Your task to perform on an android device: read, delete, or share a saved page in the chrome app Image 0: 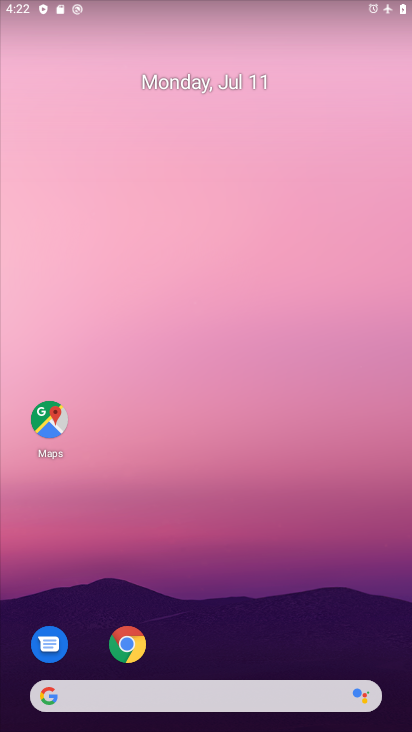
Step 0: drag from (198, 590) to (227, 5)
Your task to perform on an android device: read, delete, or share a saved page in the chrome app Image 1: 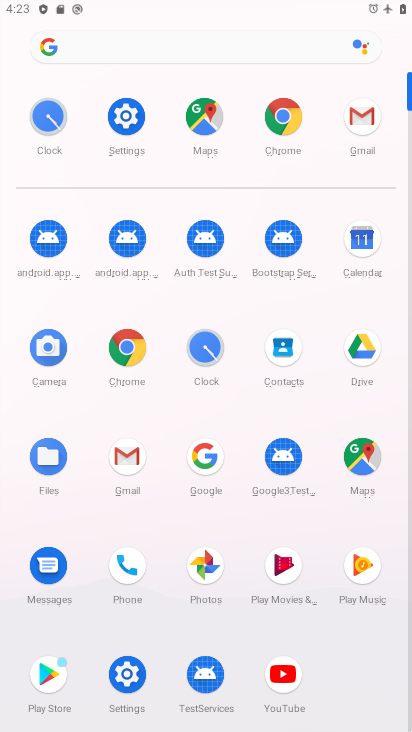
Step 1: click (121, 364)
Your task to perform on an android device: read, delete, or share a saved page in the chrome app Image 2: 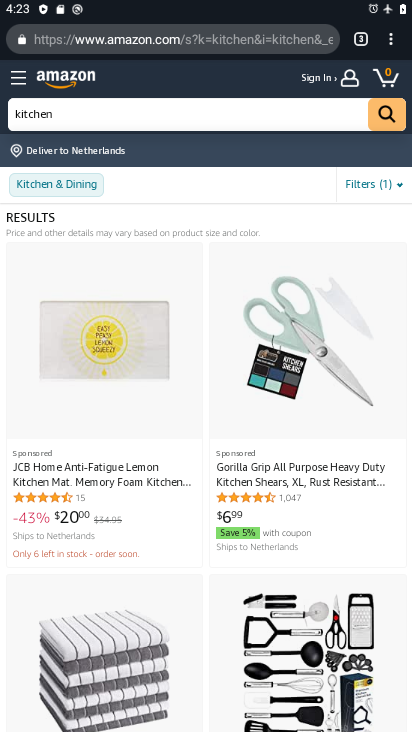
Step 2: click (391, 43)
Your task to perform on an android device: read, delete, or share a saved page in the chrome app Image 3: 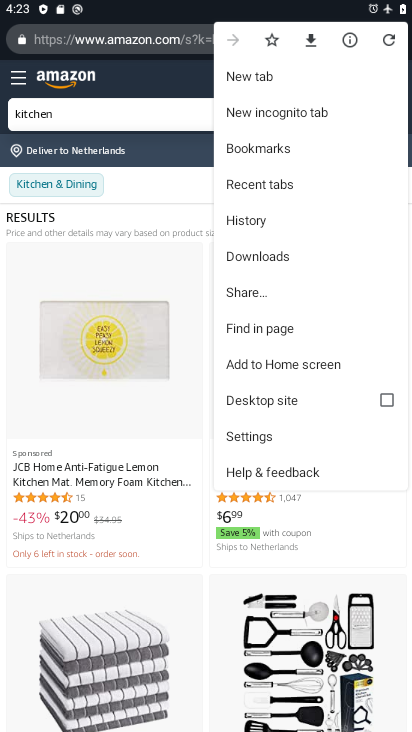
Step 3: click (251, 259)
Your task to perform on an android device: read, delete, or share a saved page in the chrome app Image 4: 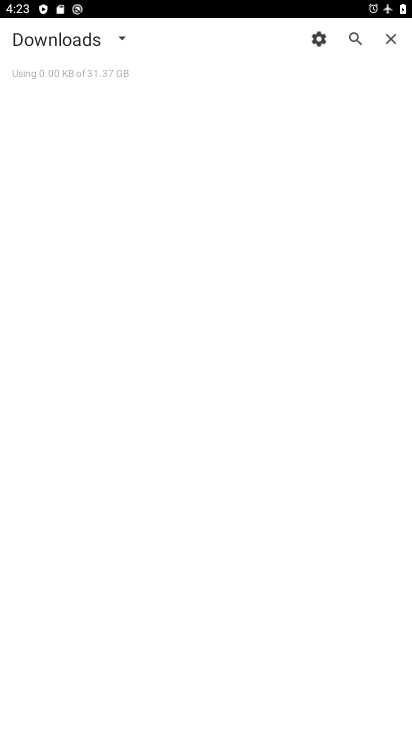
Step 4: task complete